Your task to perform on an android device: Open battery settings Image 0: 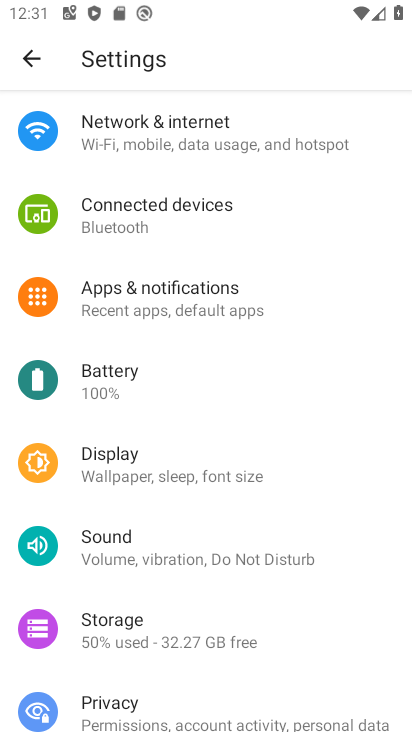
Step 0: click (116, 378)
Your task to perform on an android device: Open battery settings Image 1: 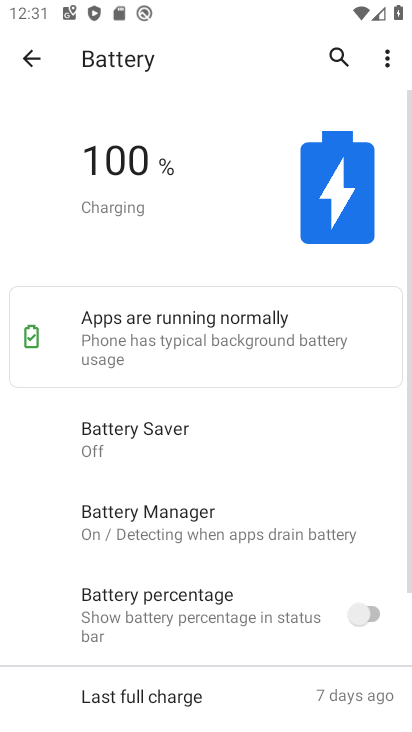
Step 1: task complete